Your task to perform on an android device: Open internet settings Image 0: 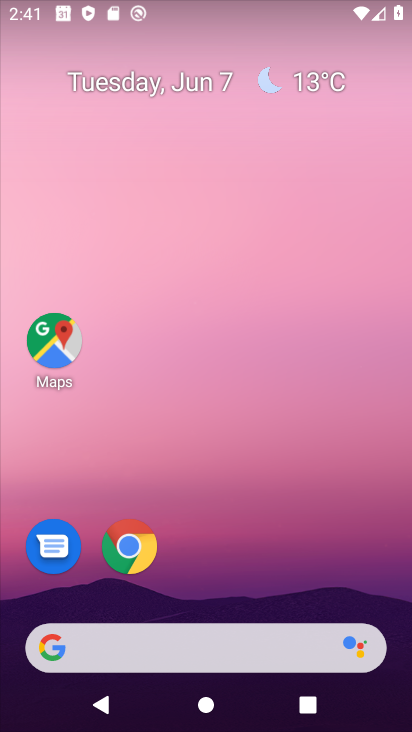
Step 0: drag from (280, 12) to (336, 701)
Your task to perform on an android device: Open internet settings Image 1: 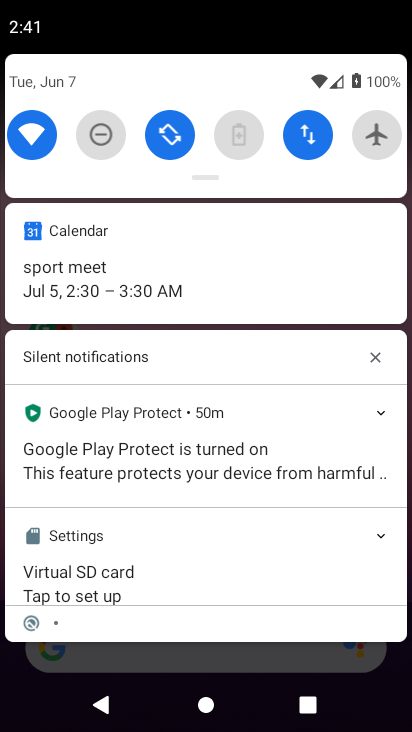
Step 1: click (308, 145)
Your task to perform on an android device: Open internet settings Image 2: 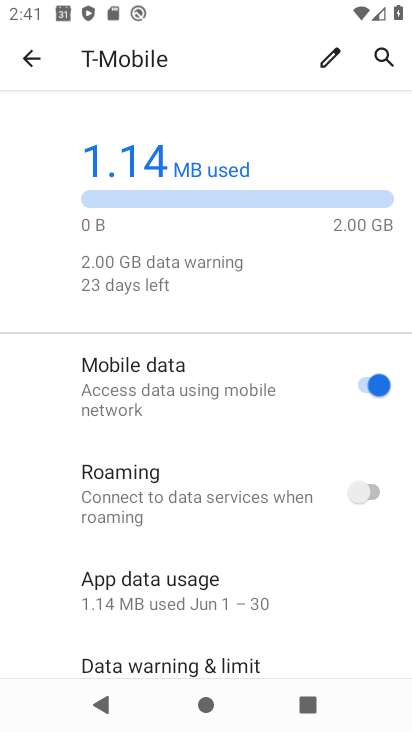
Step 2: task complete